Your task to perform on an android device: toggle data saver in the chrome app Image 0: 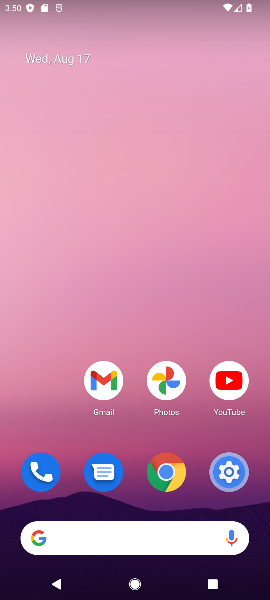
Step 0: click (176, 468)
Your task to perform on an android device: toggle data saver in the chrome app Image 1: 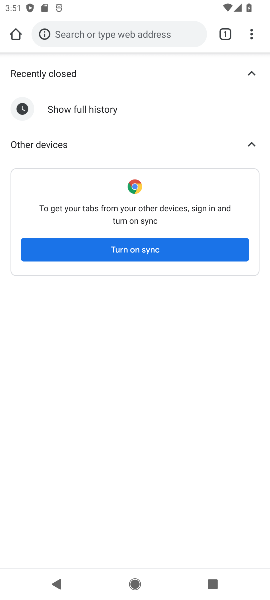
Step 1: click (247, 37)
Your task to perform on an android device: toggle data saver in the chrome app Image 2: 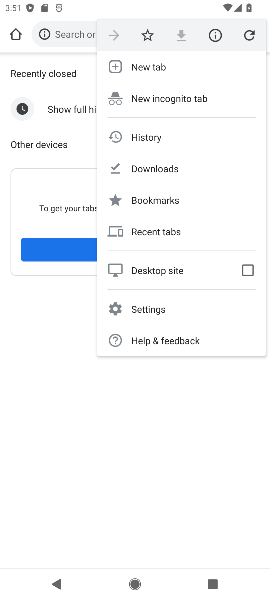
Step 2: click (140, 311)
Your task to perform on an android device: toggle data saver in the chrome app Image 3: 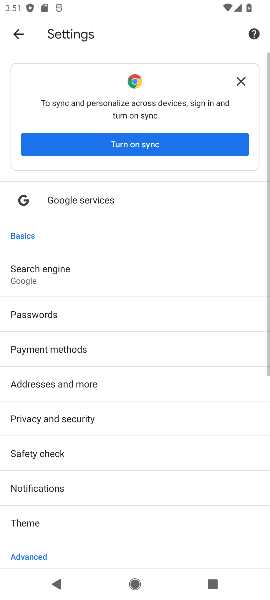
Step 3: drag from (113, 442) to (138, 254)
Your task to perform on an android device: toggle data saver in the chrome app Image 4: 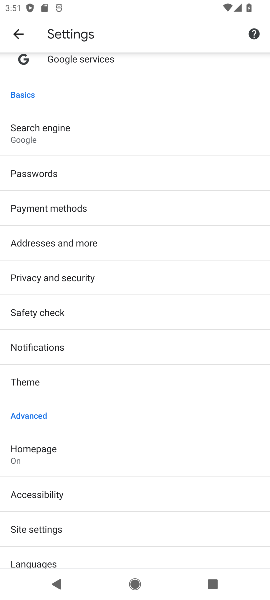
Step 4: drag from (66, 516) to (119, 169)
Your task to perform on an android device: toggle data saver in the chrome app Image 5: 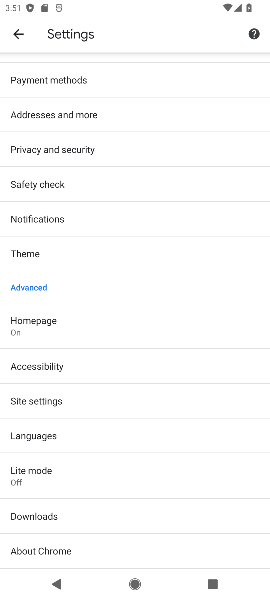
Step 5: click (62, 478)
Your task to perform on an android device: toggle data saver in the chrome app Image 6: 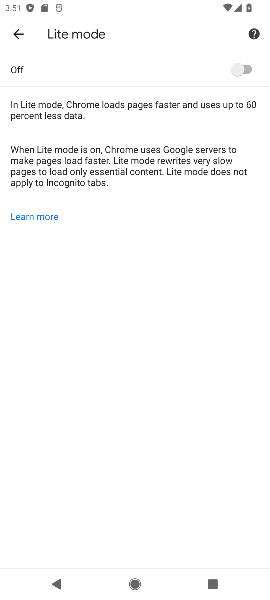
Step 6: click (251, 66)
Your task to perform on an android device: toggle data saver in the chrome app Image 7: 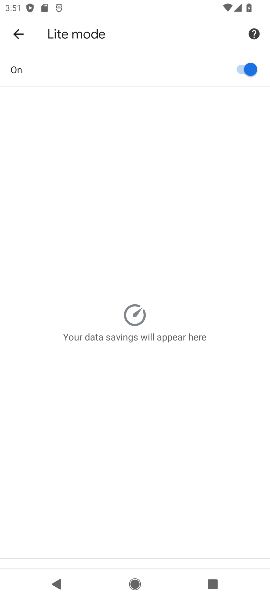
Step 7: task complete